Your task to perform on an android device: clear history in the chrome app Image 0: 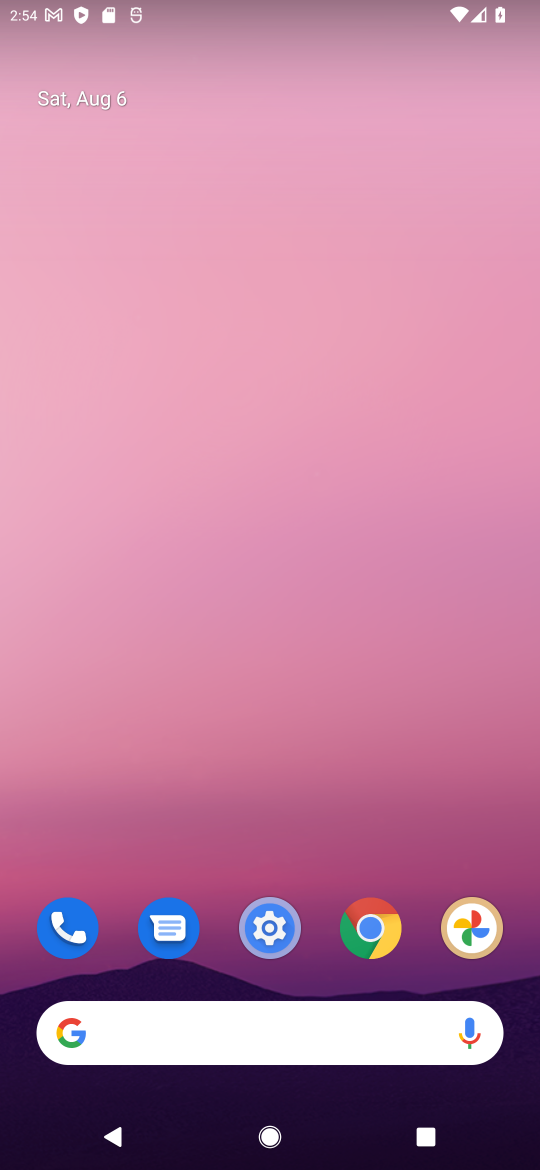
Step 0: drag from (227, 947) to (268, 232)
Your task to perform on an android device: clear history in the chrome app Image 1: 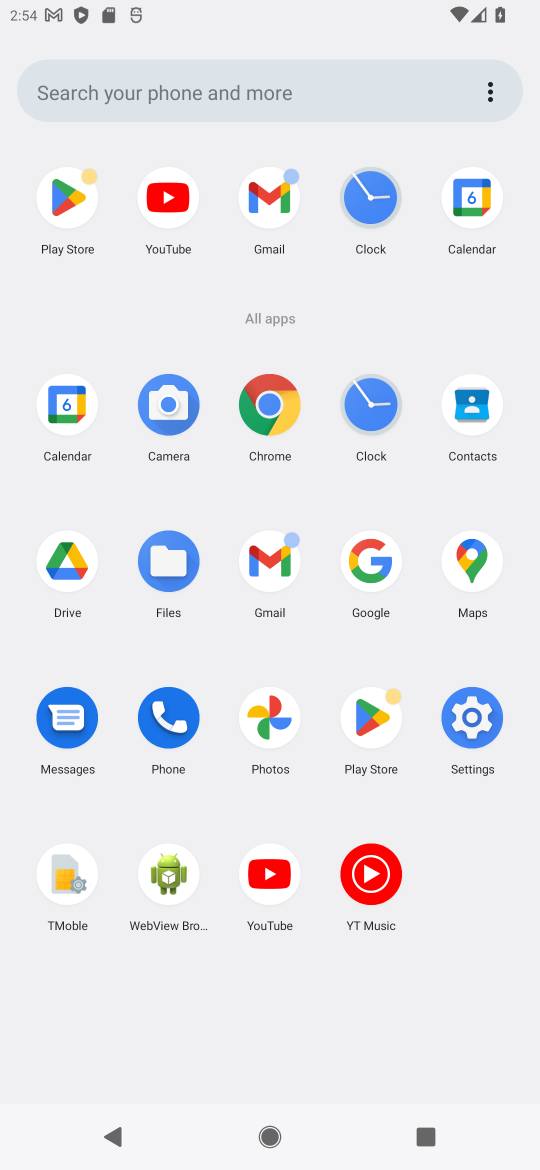
Step 1: click (257, 398)
Your task to perform on an android device: clear history in the chrome app Image 2: 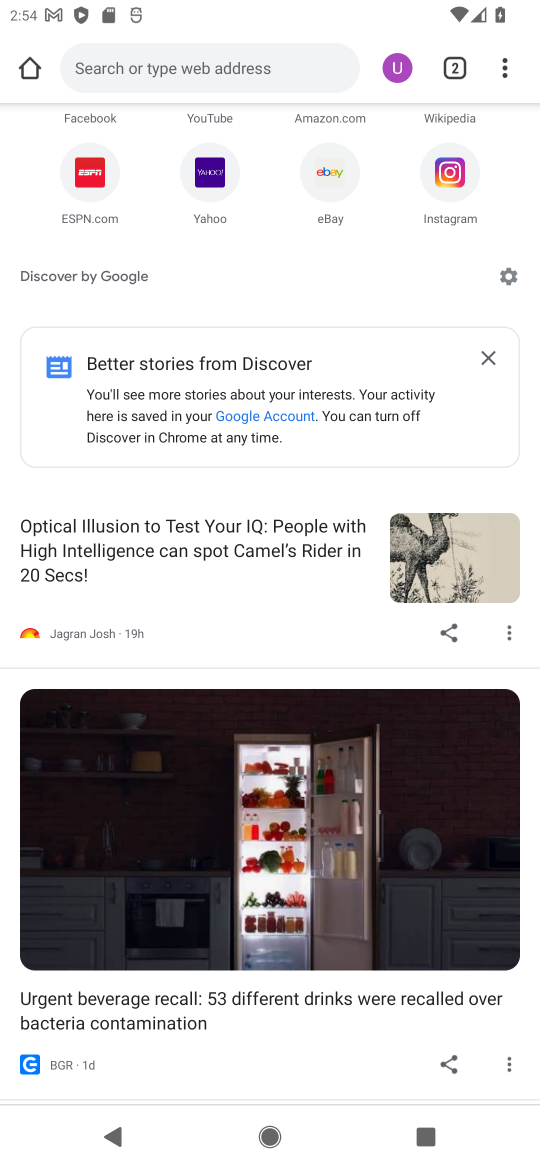
Step 2: task complete